Your task to perform on an android device: move an email to a new category in the gmail app Image 0: 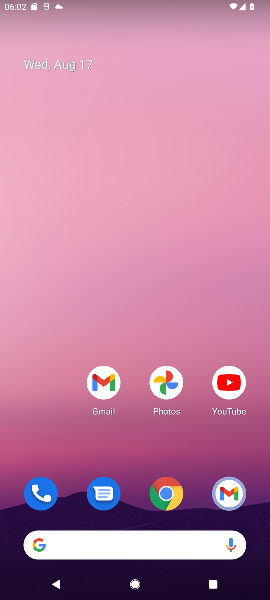
Step 0: press home button
Your task to perform on an android device: move an email to a new category in the gmail app Image 1: 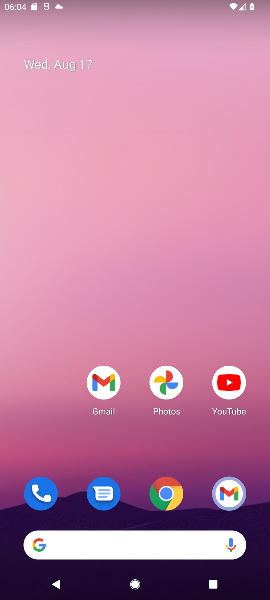
Step 1: click (120, 391)
Your task to perform on an android device: move an email to a new category in the gmail app Image 2: 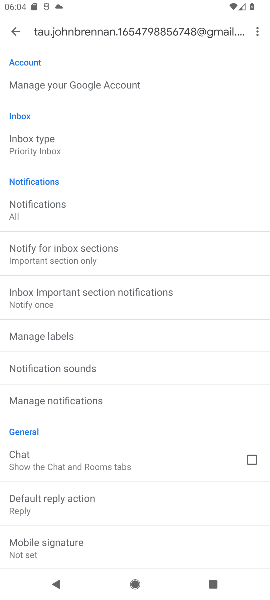
Step 2: press back button
Your task to perform on an android device: move an email to a new category in the gmail app Image 3: 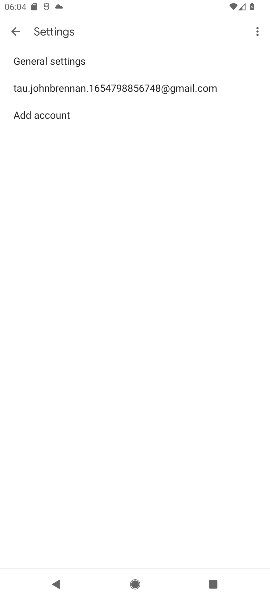
Step 3: press back button
Your task to perform on an android device: move an email to a new category in the gmail app Image 4: 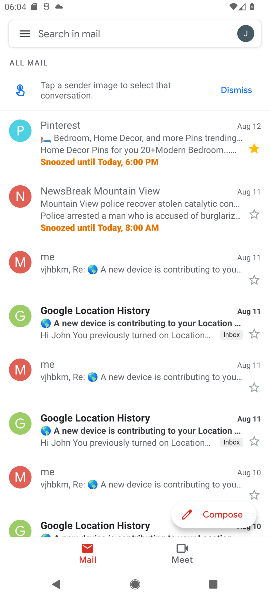
Step 4: click (101, 144)
Your task to perform on an android device: move an email to a new category in the gmail app Image 5: 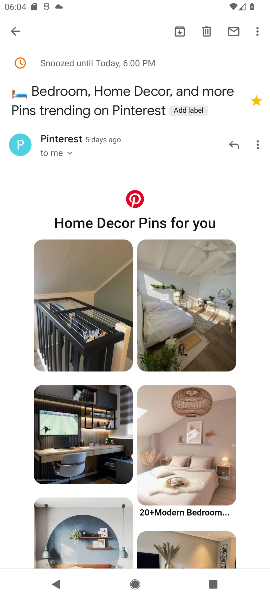
Step 5: click (256, 37)
Your task to perform on an android device: move an email to a new category in the gmail app Image 6: 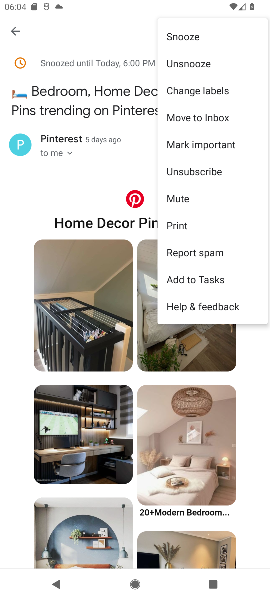
Step 6: click (196, 116)
Your task to perform on an android device: move an email to a new category in the gmail app Image 7: 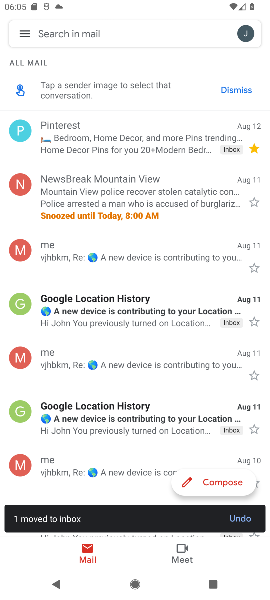
Step 7: task complete